Your task to perform on an android device: Open calendar and show me the first week of next month Image 0: 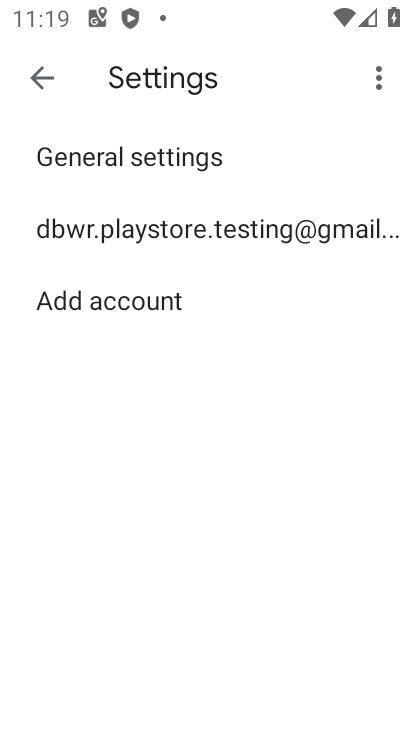
Step 0: press home button
Your task to perform on an android device: Open calendar and show me the first week of next month Image 1: 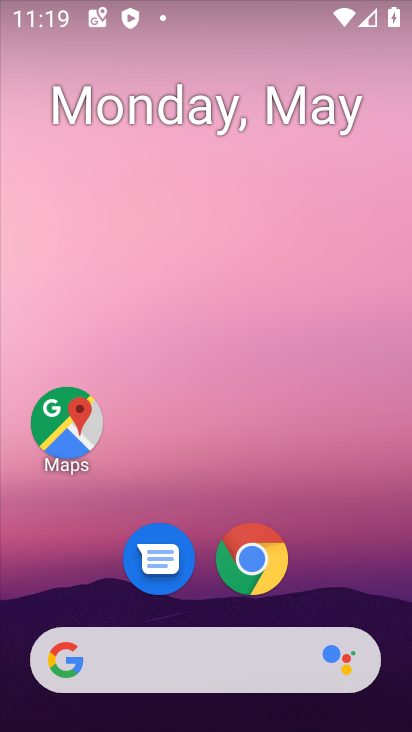
Step 1: drag from (344, 565) to (280, 87)
Your task to perform on an android device: Open calendar and show me the first week of next month Image 2: 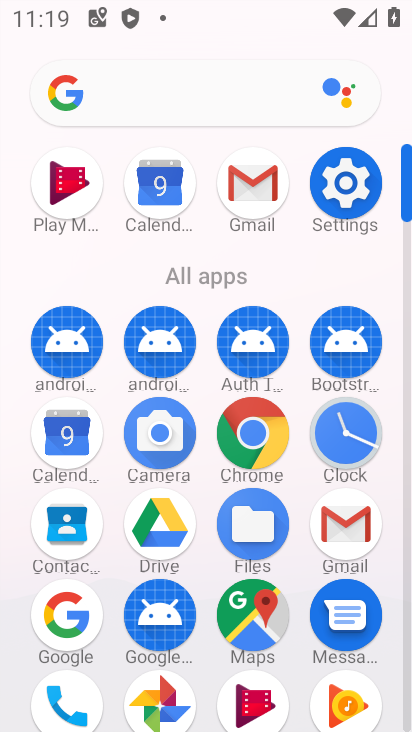
Step 2: click (61, 429)
Your task to perform on an android device: Open calendar and show me the first week of next month Image 3: 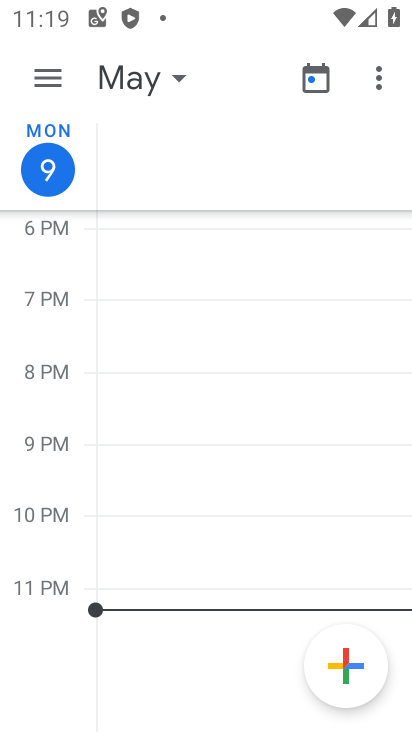
Step 3: click (137, 77)
Your task to perform on an android device: Open calendar and show me the first week of next month Image 4: 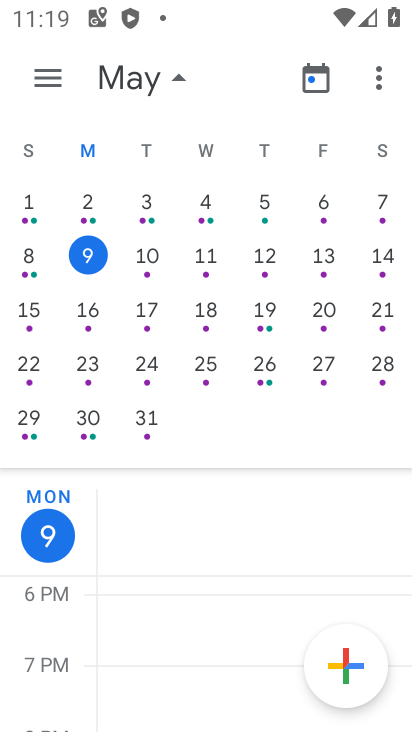
Step 4: task complete